Your task to perform on an android device: Open the web browser Image 0: 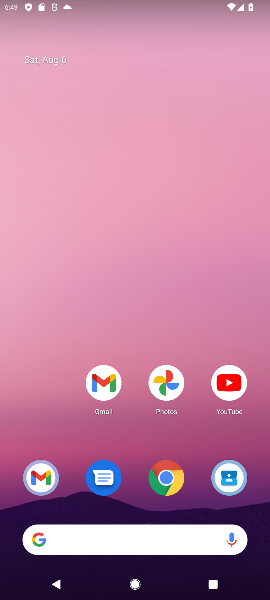
Step 0: click (37, 537)
Your task to perform on an android device: Open the web browser Image 1: 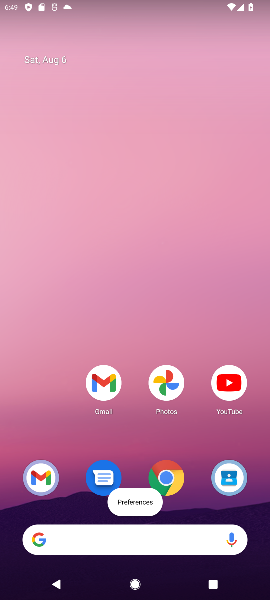
Step 1: click (64, 493)
Your task to perform on an android device: Open the web browser Image 2: 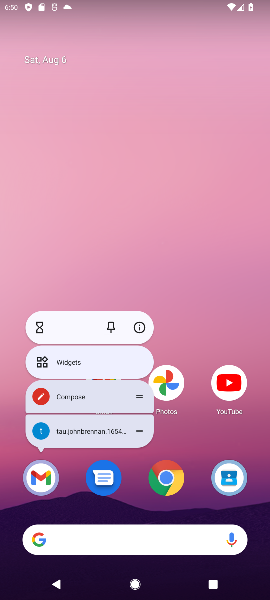
Step 2: click (38, 532)
Your task to perform on an android device: Open the web browser Image 3: 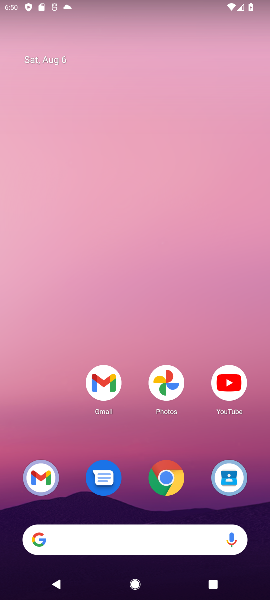
Step 3: click (39, 536)
Your task to perform on an android device: Open the web browser Image 4: 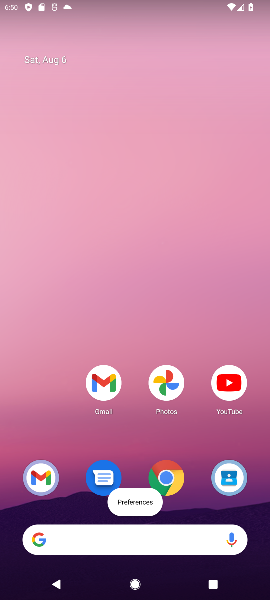
Step 4: click (39, 536)
Your task to perform on an android device: Open the web browser Image 5: 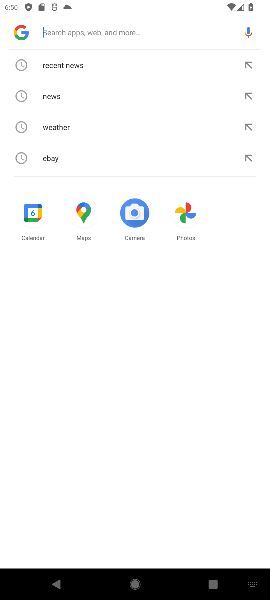
Step 5: task complete